Your task to perform on an android device: Go to Android settings Image 0: 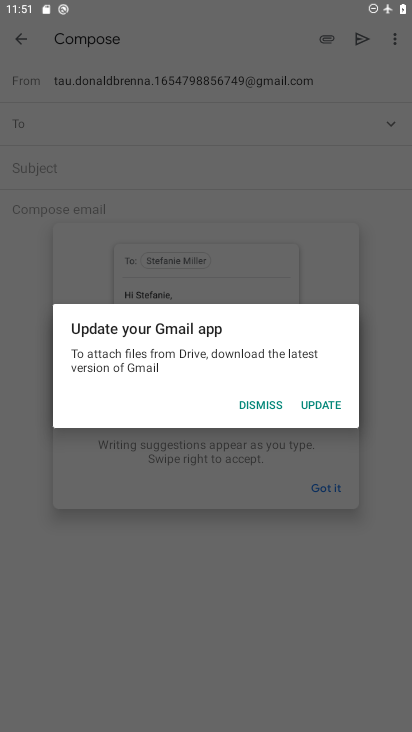
Step 0: press home button
Your task to perform on an android device: Go to Android settings Image 1: 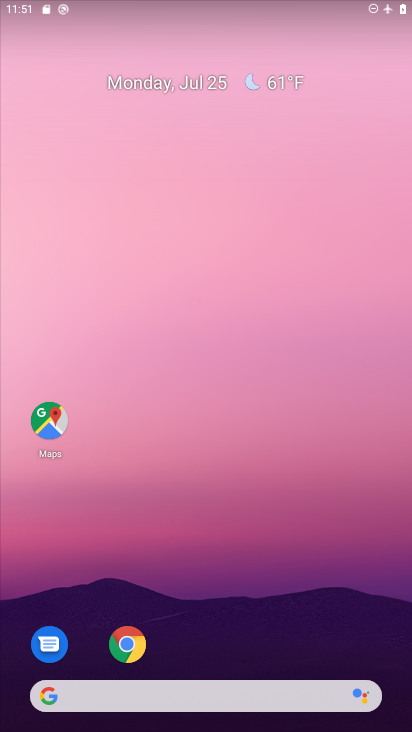
Step 1: drag from (216, 647) to (205, 372)
Your task to perform on an android device: Go to Android settings Image 2: 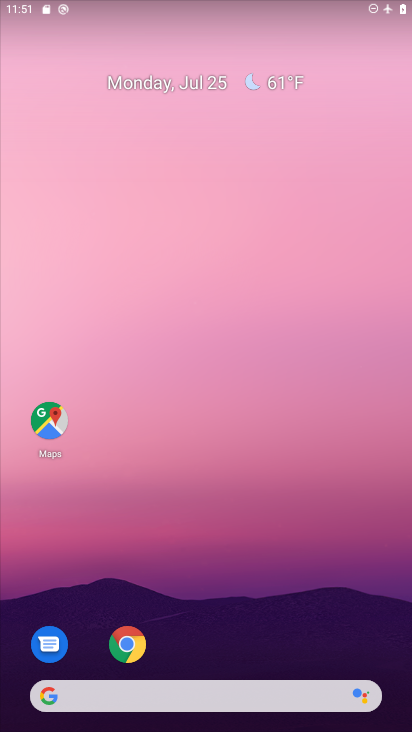
Step 2: drag from (221, 616) to (183, 41)
Your task to perform on an android device: Go to Android settings Image 3: 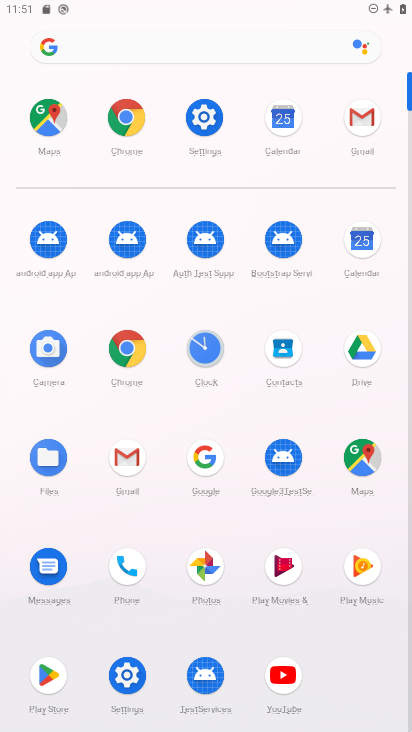
Step 3: click (204, 118)
Your task to perform on an android device: Go to Android settings Image 4: 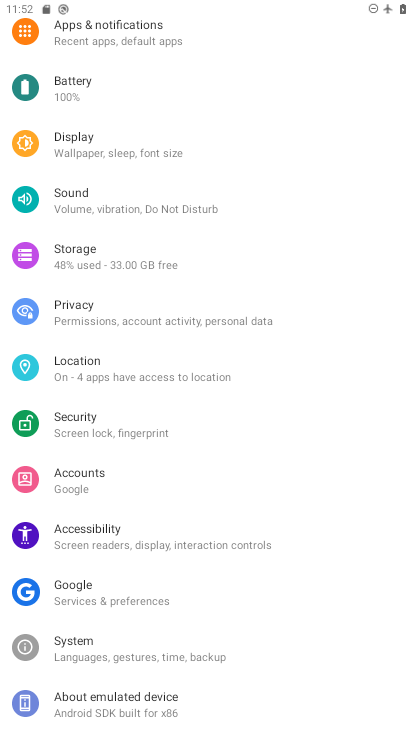
Step 4: task complete